Your task to perform on an android device: turn off priority inbox in the gmail app Image 0: 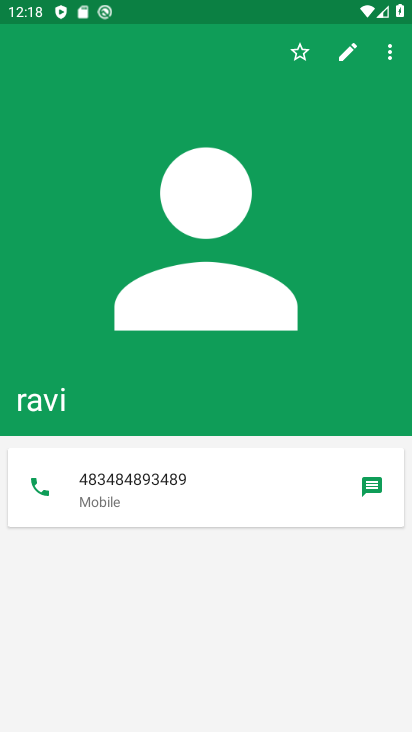
Step 0: press home button
Your task to perform on an android device: turn off priority inbox in the gmail app Image 1: 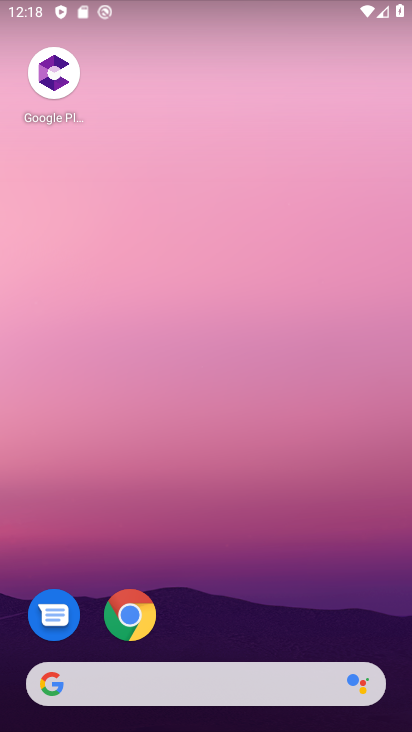
Step 1: drag from (379, 613) to (372, 209)
Your task to perform on an android device: turn off priority inbox in the gmail app Image 2: 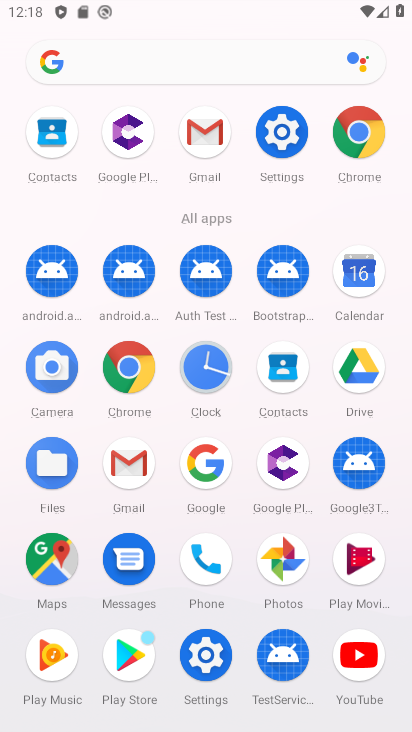
Step 2: click (140, 477)
Your task to perform on an android device: turn off priority inbox in the gmail app Image 3: 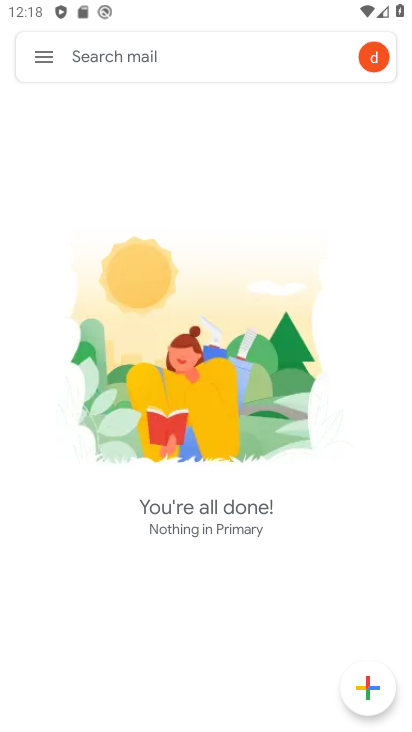
Step 3: click (43, 55)
Your task to perform on an android device: turn off priority inbox in the gmail app Image 4: 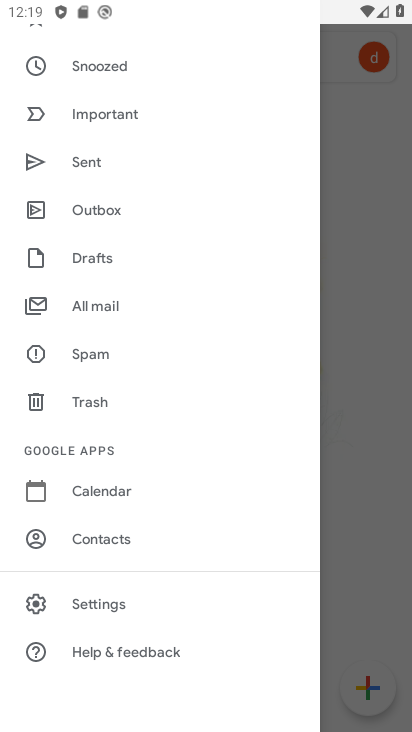
Step 4: click (128, 606)
Your task to perform on an android device: turn off priority inbox in the gmail app Image 5: 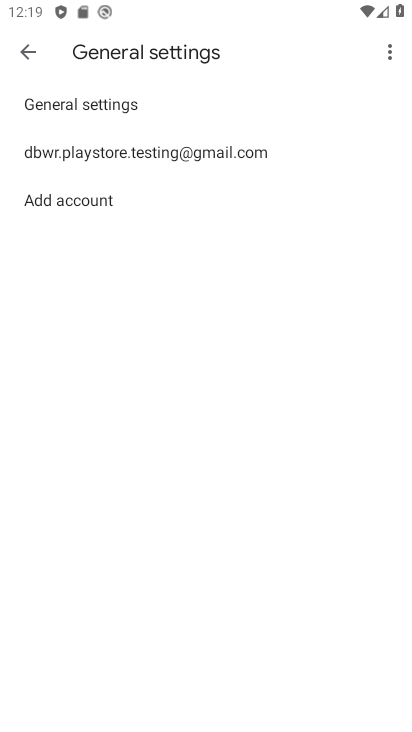
Step 5: click (272, 150)
Your task to perform on an android device: turn off priority inbox in the gmail app Image 6: 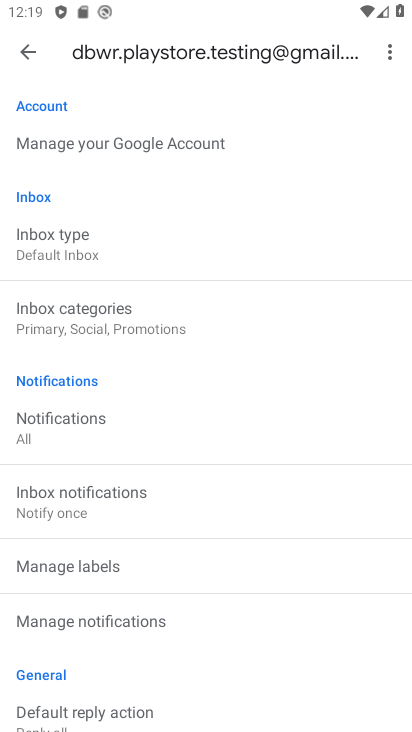
Step 6: click (235, 251)
Your task to perform on an android device: turn off priority inbox in the gmail app Image 7: 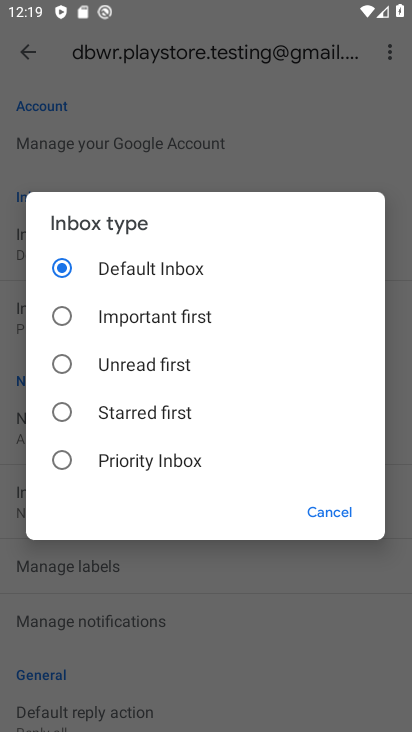
Step 7: task complete